Your task to perform on an android device: Open Chrome and go to the settings page Image 0: 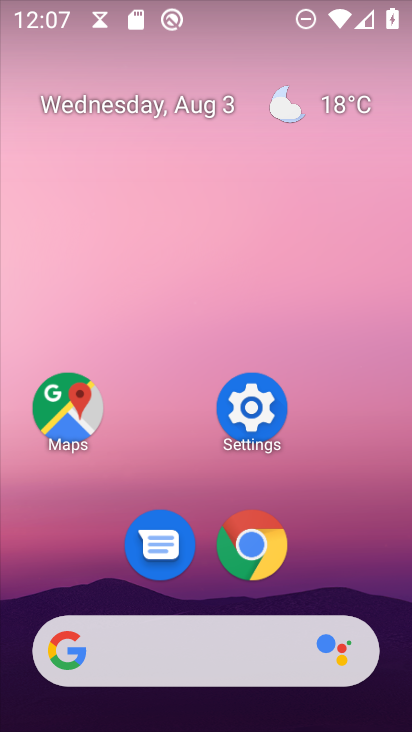
Step 0: click (253, 546)
Your task to perform on an android device: Open Chrome and go to the settings page Image 1: 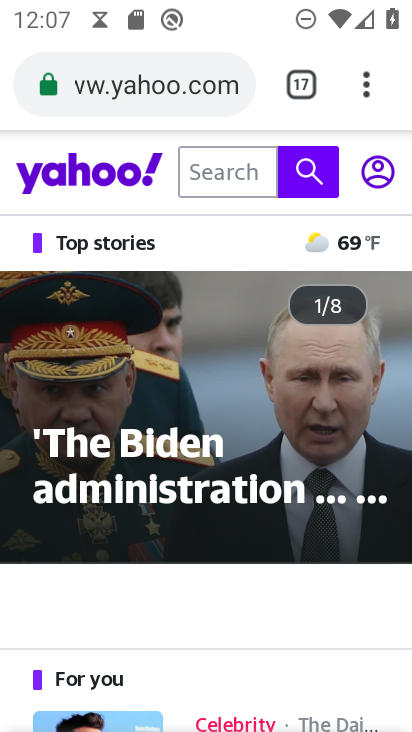
Step 1: task complete